Your task to perform on an android device: Open settings Image 0: 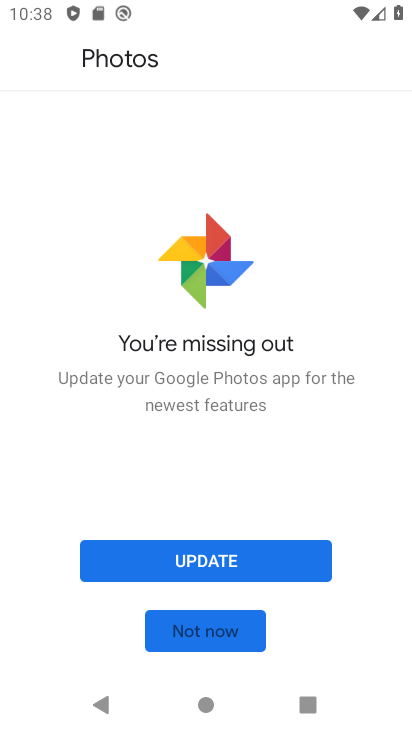
Step 0: press home button
Your task to perform on an android device: Open settings Image 1: 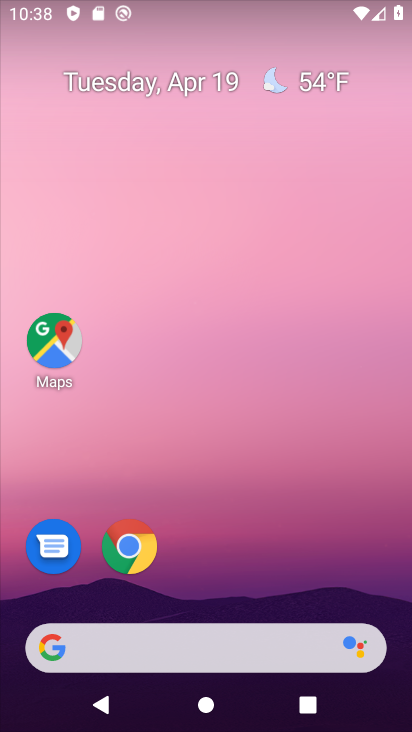
Step 1: drag from (230, 619) to (283, 140)
Your task to perform on an android device: Open settings Image 2: 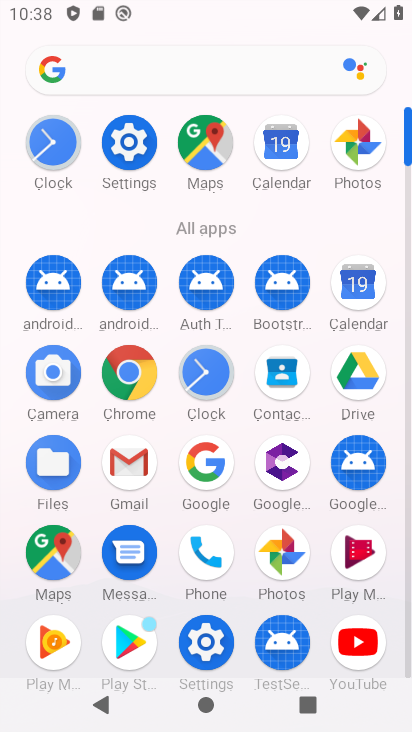
Step 2: click (132, 139)
Your task to perform on an android device: Open settings Image 3: 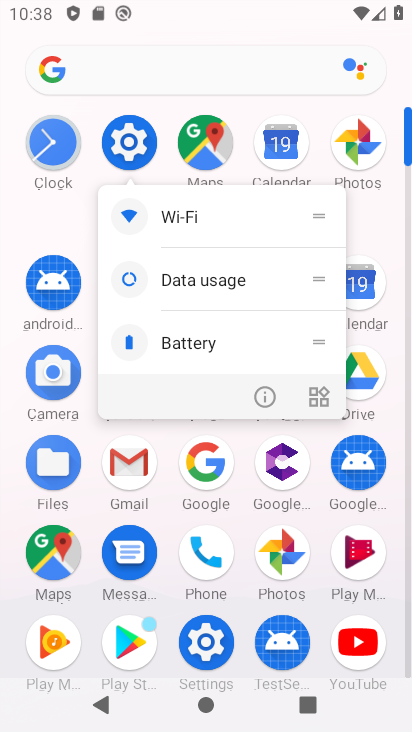
Step 3: click (115, 141)
Your task to perform on an android device: Open settings Image 4: 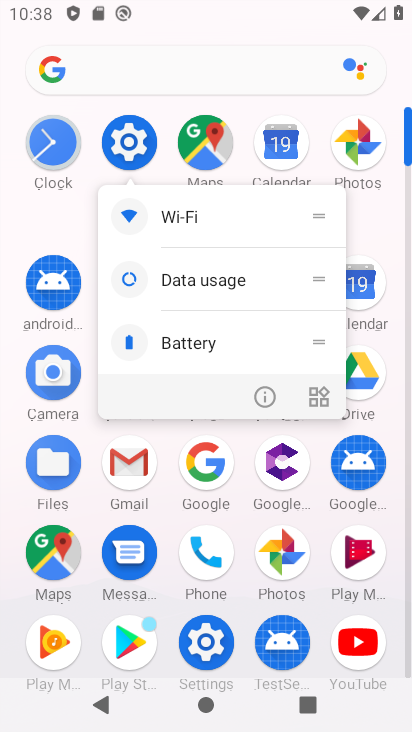
Step 4: click (115, 140)
Your task to perform on an android device: Open settings Image 5: 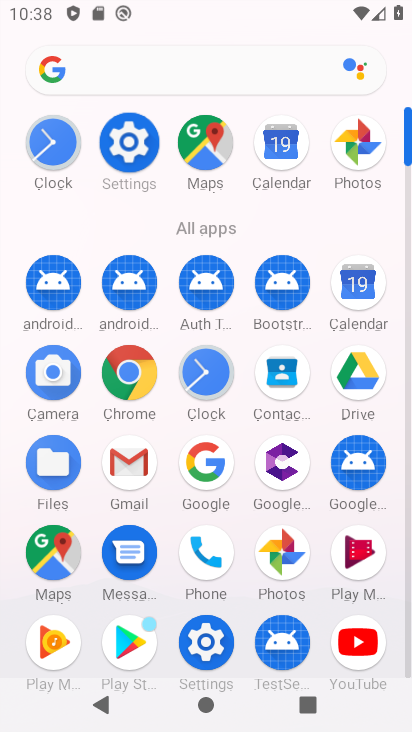
Step 5: click (115, 140)
Your task to perform on an android device: Open settings Image 6: 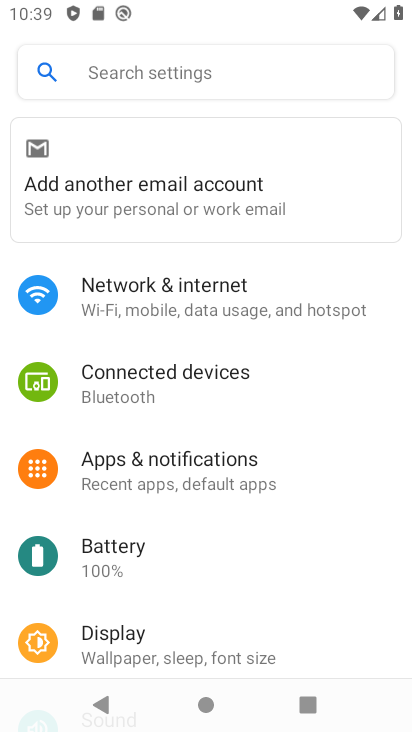
Step 6: task complete